Your task to perform on an android device: Open the stopwatch Image 0: 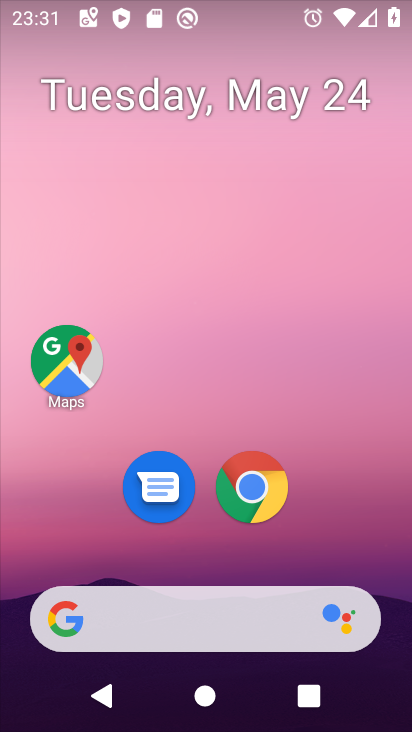
Step 0: drag from (123, 568) to (304, 65)
Your task to perform on an android device: Open the stopwatch Image 1: 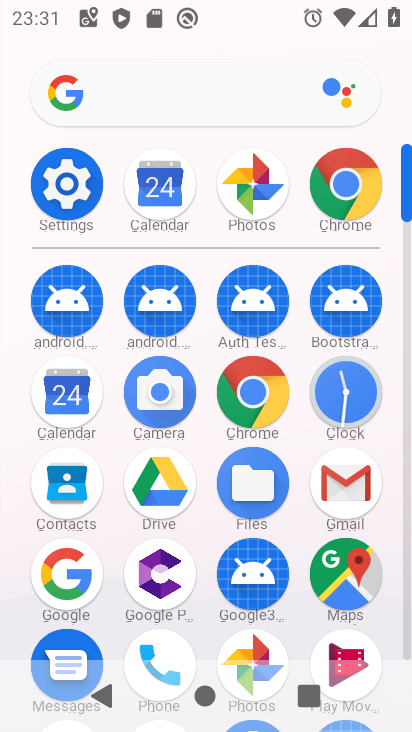
Step 1: click (365, 386)
Your task to perform on an android device: Open the stopwatch Image 2: 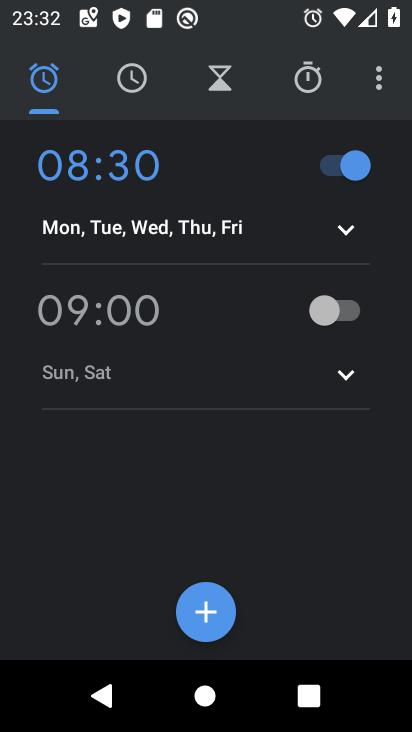
Step 2: click (312, 78)
Your task to perform on an android device: Open the stopwatch Image 3: 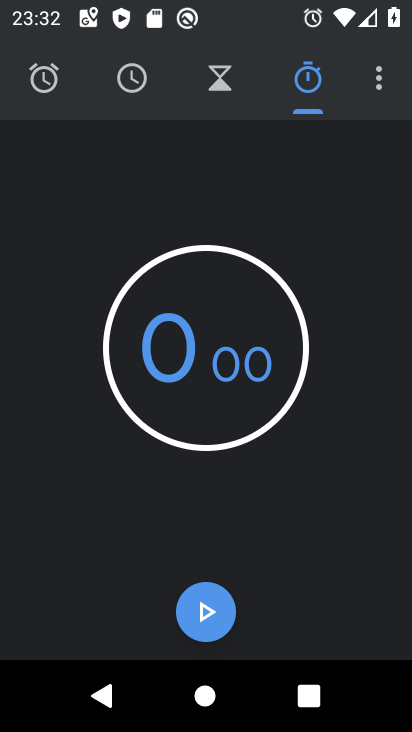
Step 3: task complete